Your task to perform on an android device: set default search engine in the chrome app Image 0: 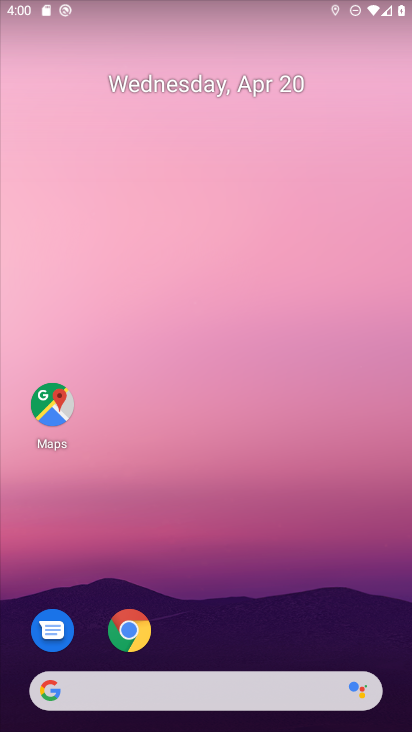
Step 0: drag from (224, 641) to (214, 8)
Your task to perform on an android device: set default search engine in the chrome app Image 1: 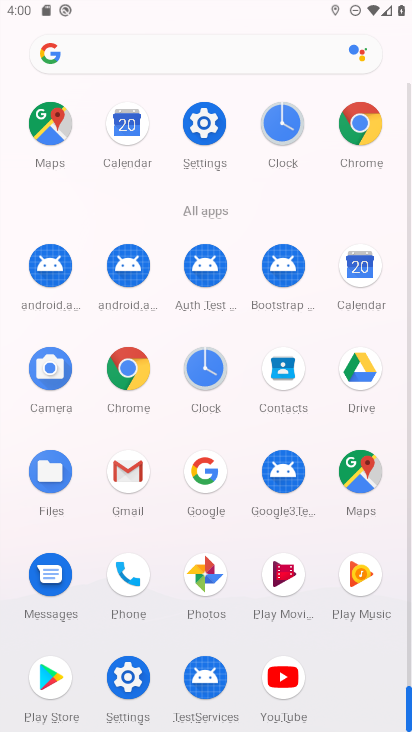
Step 1: click (126, 358)
Your task to perform on an android device: set default search engine in the chrome app Image 2: 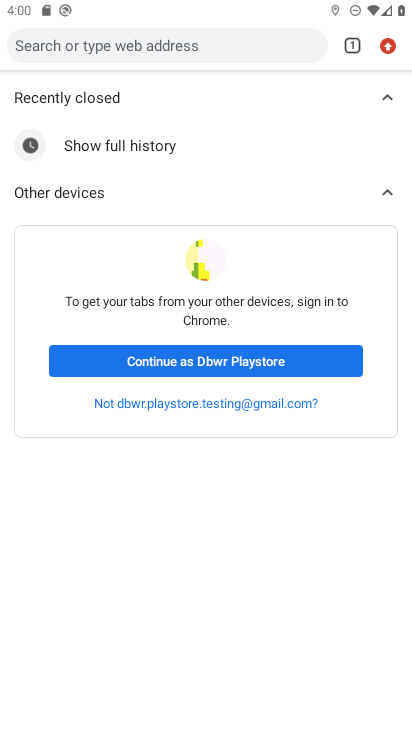
Step 2: click (388, 40)
Your task to perform on an android device: set default search engine in the chrome app Image 3: 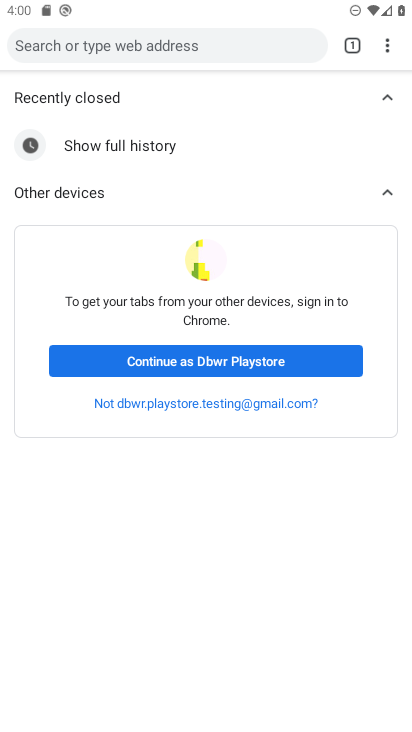
Step 3: click (376, 43)
Your task to perform on an android device: set default search engine in the chrome app Image 4: 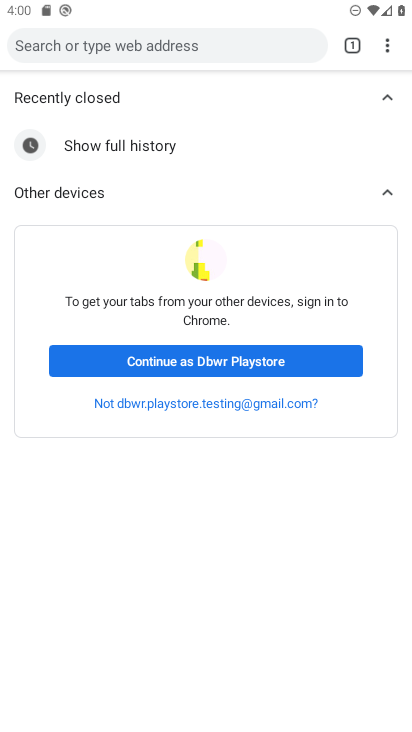
Step 4: drag from (378, 65) to (316, 521)
Your task to perform on an android device: set default search engine in the chrome app Image 5: 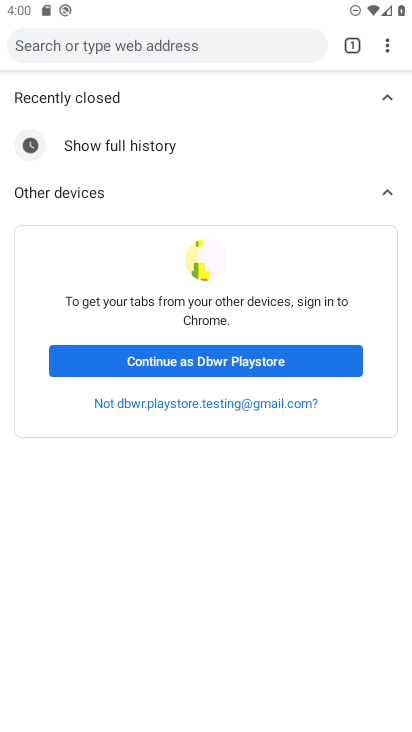
Step 5: drag from (378, 40) to (268, 444)
Your task to perform on an android device: set default search engine in the chrome app Image 6: 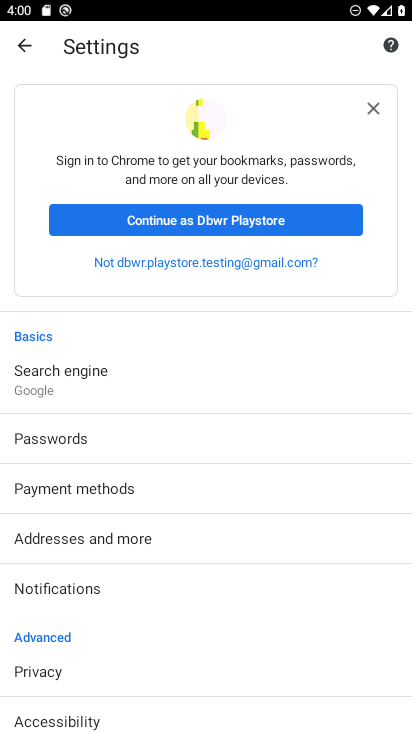
Step 6: drag from (224, 607) to (173, 523)
Your task to perform on an android device: set default search engine in the chrome app Image 7: 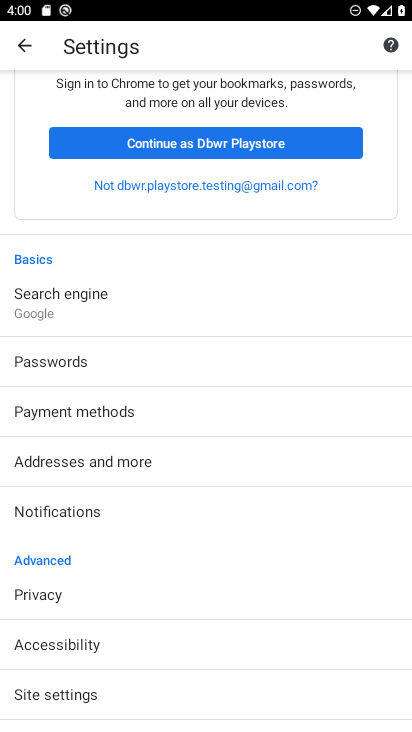
Step 7: click (101, 320)
Your task to perform on an android device: set default search engine in the chrome app Image 8: 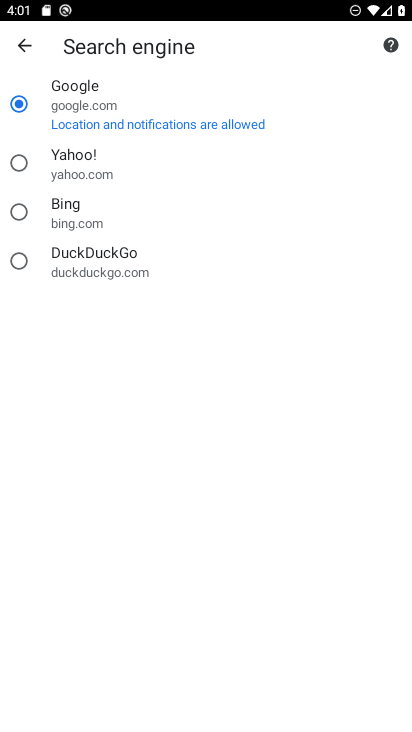
Step 8: task complete